Your task to perform on an android device: Open Youtube and go to "Your channel" Image 0: 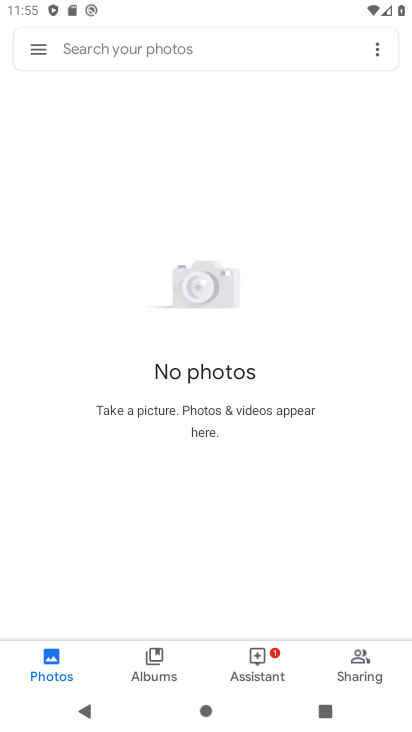
Step 0: press home button
Your task to perform on an android device: Open Youtube and go to "Your channel" Image 1: 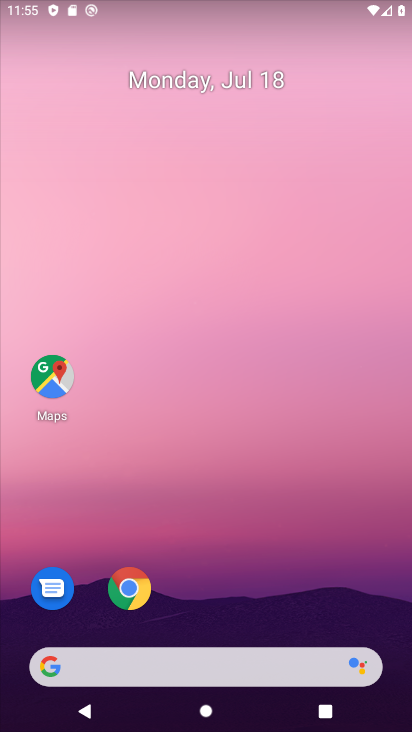
Step 1: drag from (250, 575) to (165, 119)
Your task to perform on an android device: Open Youtube and go to "Your channel" Image 2: 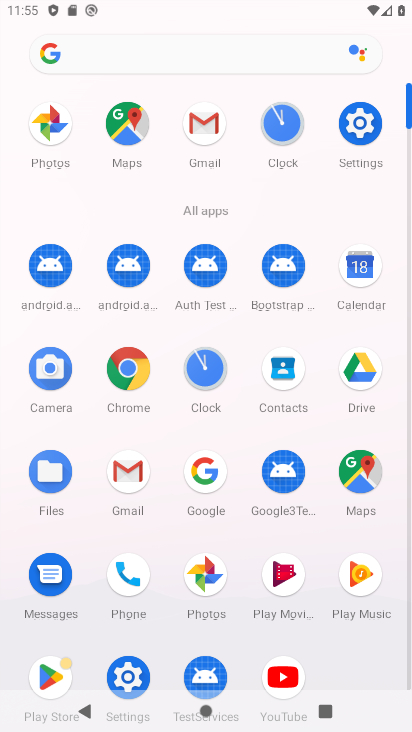
Step 2: click (274, 678)
Your task to perform on an android device: Open Youtube and go to "Your channel" Image 3: 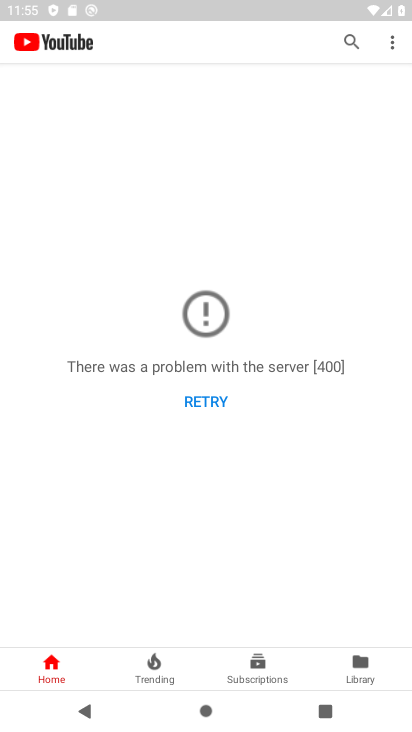
Step 3: click (354, 672)
Your task to perform on an android device: Open Youtube and go to "Your channel" Image 4: 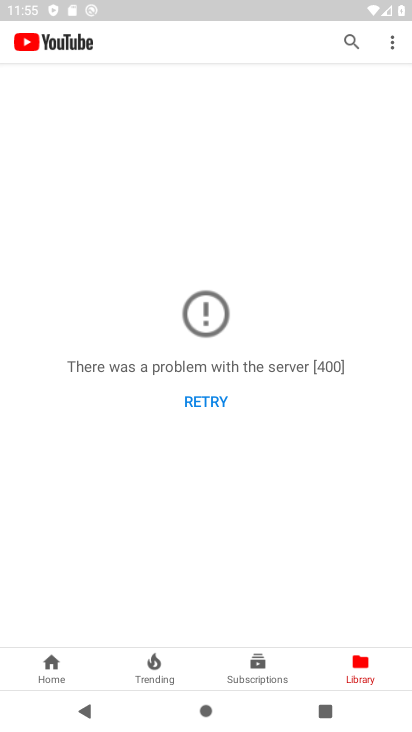
Step 4: click (200, 399)
Your task to perform on an android device: Open Youtube and go to "Your channel" Image 5: 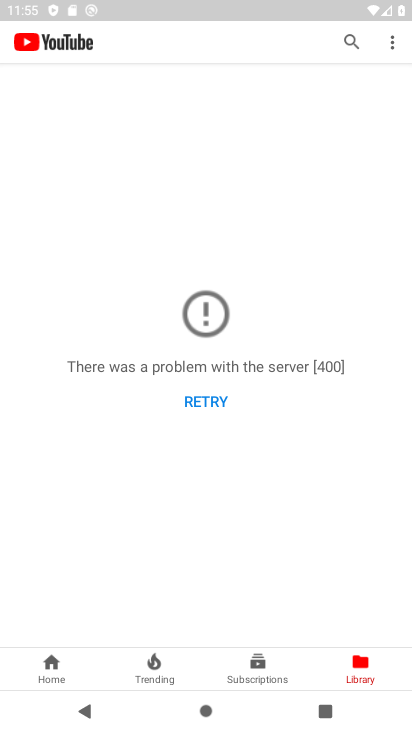
Step 5: click (200, 399)
Your task to perform on an android device: Open Youtube and go to "Your channel" Image 6: 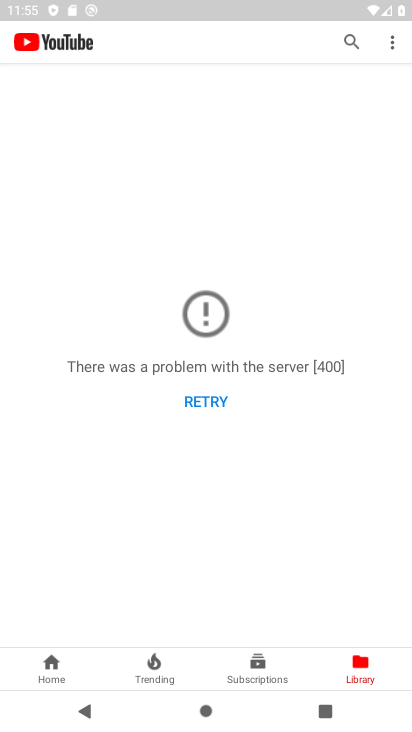
Step 6: click (200, 399)
Your task to perform on an android device: Open Youtube and go to "Your channel" Image 7: 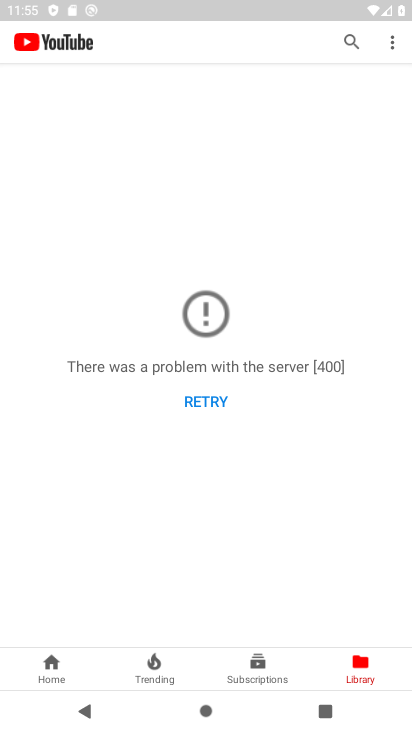
Step 7: click (200, 399)
Your task to perform on an android device: Open Youtube and go to "Your channel" Image 8: 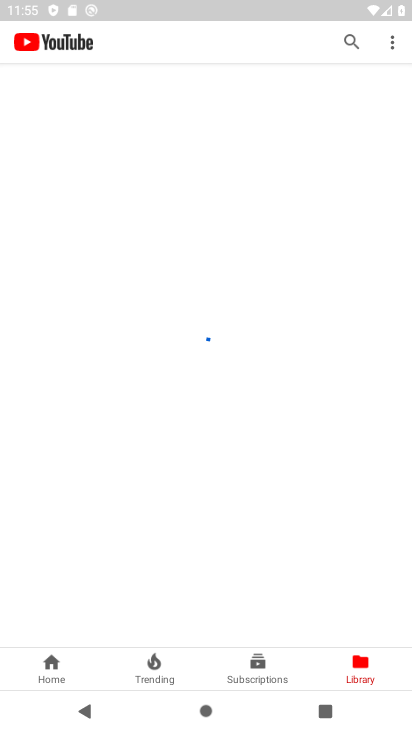
Step 8: click (200, 399)
Your task to perform on an android device: Open Youtube and go to "Your channel" Image 9: 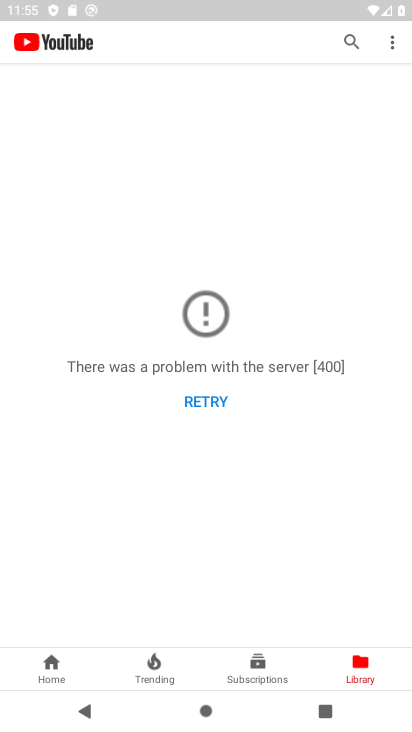
Step 9: click (200, 399)
Your task to perform on an android device: Open Youtube and go to "Your channel" Image 10: 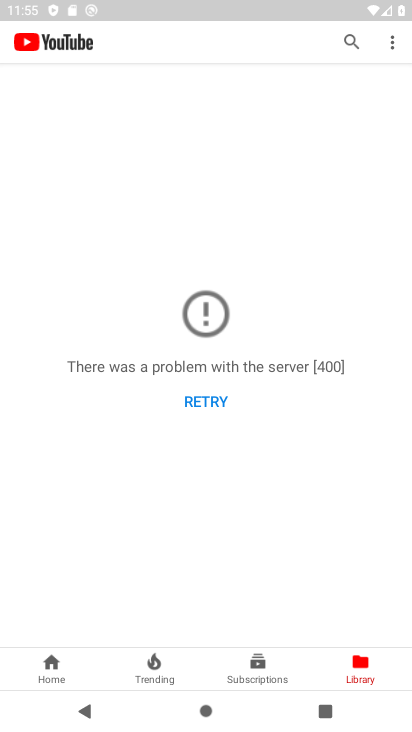
Step 10: task complete